Your task to perform on an android device: turn off javascript in the chrome app Image 0: 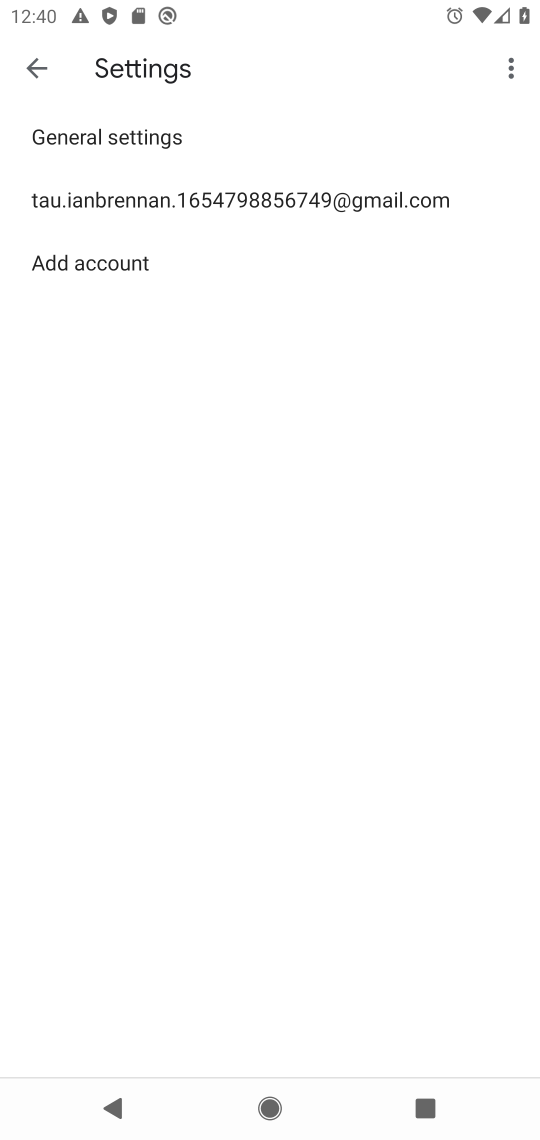
Step 0: press home button
Your task to perform on an android device: turn off javascript in the chrome app Image 1: 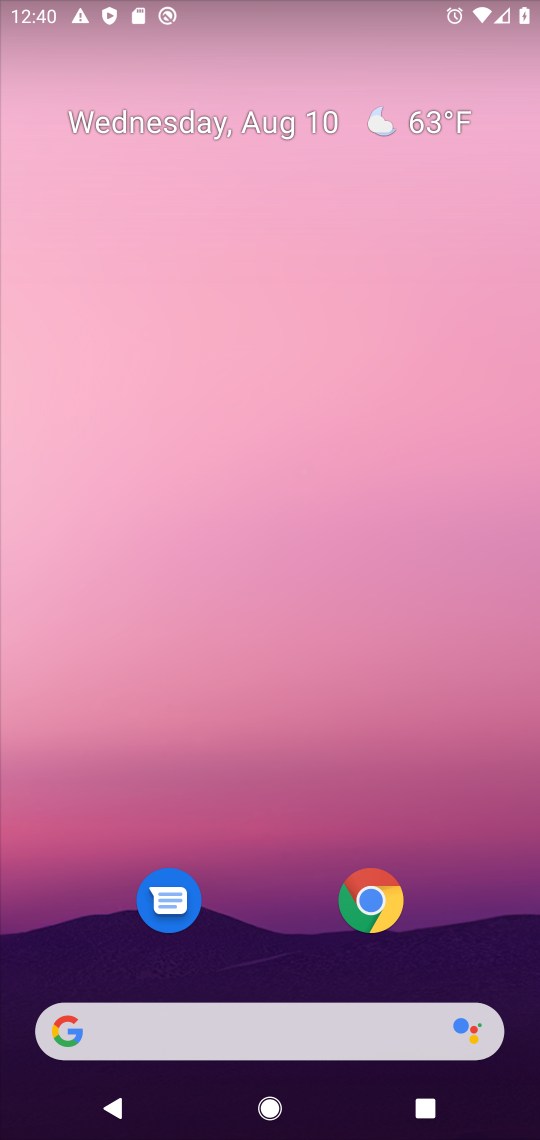
Step 1: click (381, 895)
Your task to perform on an android device: turn off javascript in the chrome app Image 2: 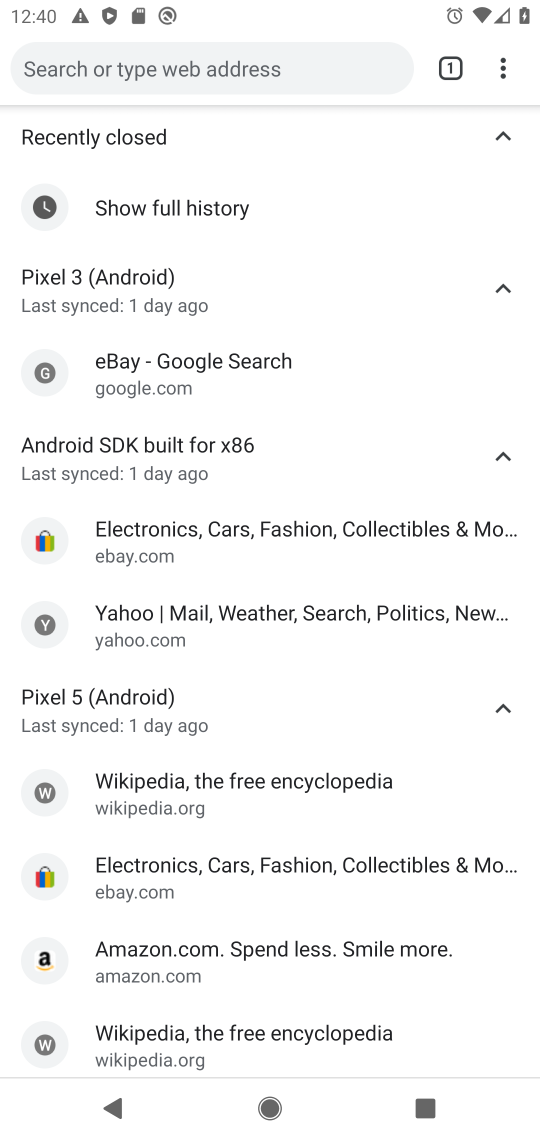
Step 2: click (505, 68)
Your task to perform on an android device: turn off javascript in the chrome app Image 3: 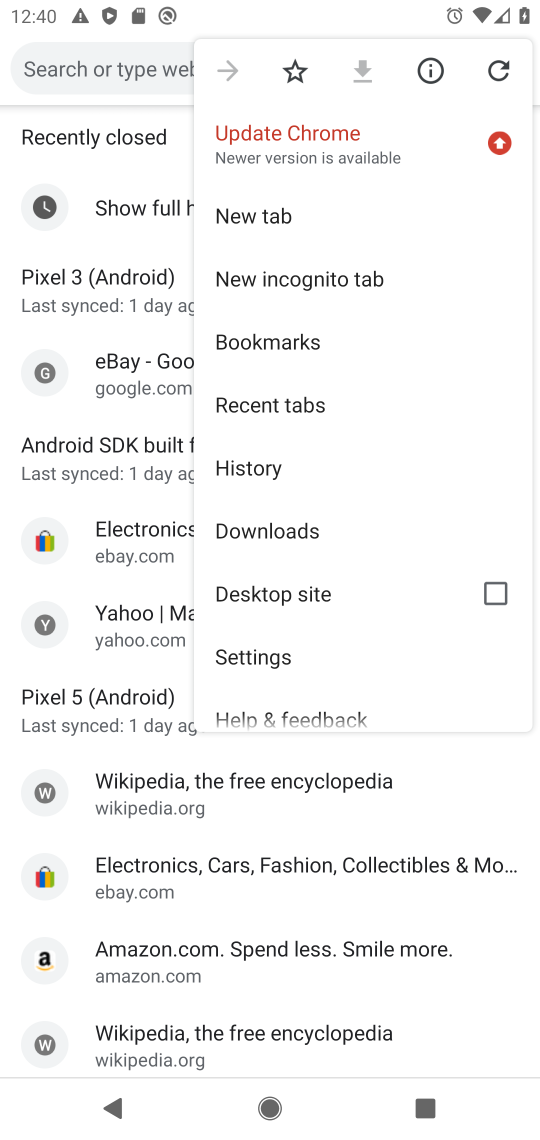
Step 3: click (276, 655)
Your task to perform on an android device: turn off javascript in the chrome app Image 4: 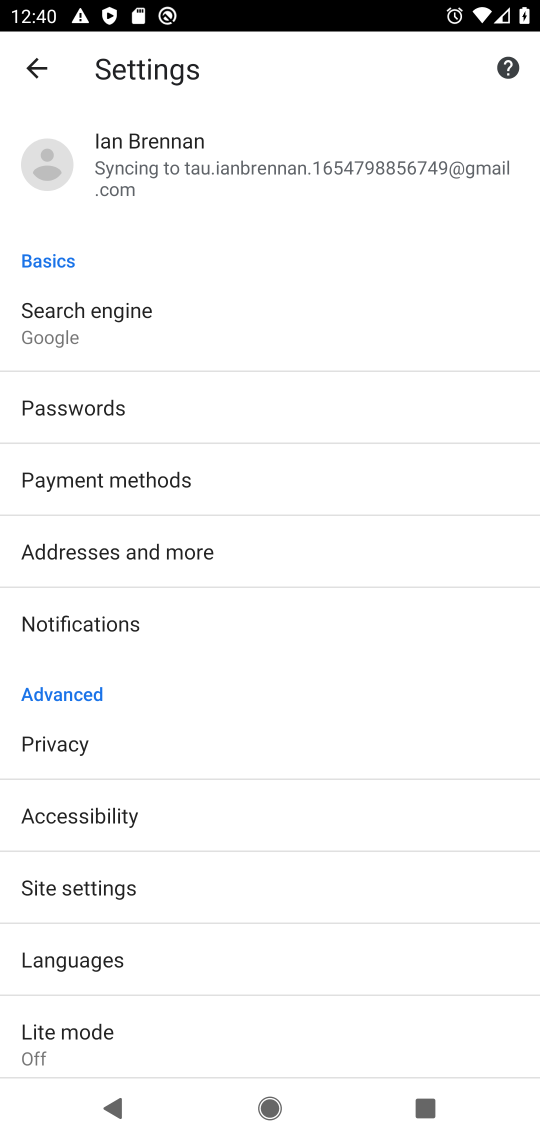
Step 4: click (238, 882)
Your task to perform on an android device: turn off javascript in the chrome app Image 5: 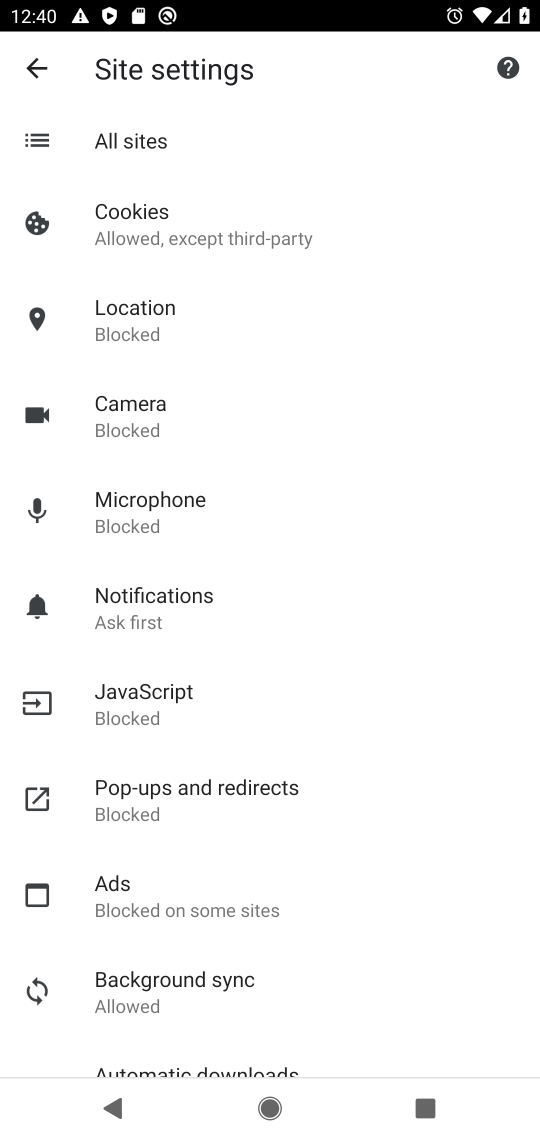
Step 5: click (164, 690)
Your task to perform on an android device: turn off javascript in the chrome app Image 6: 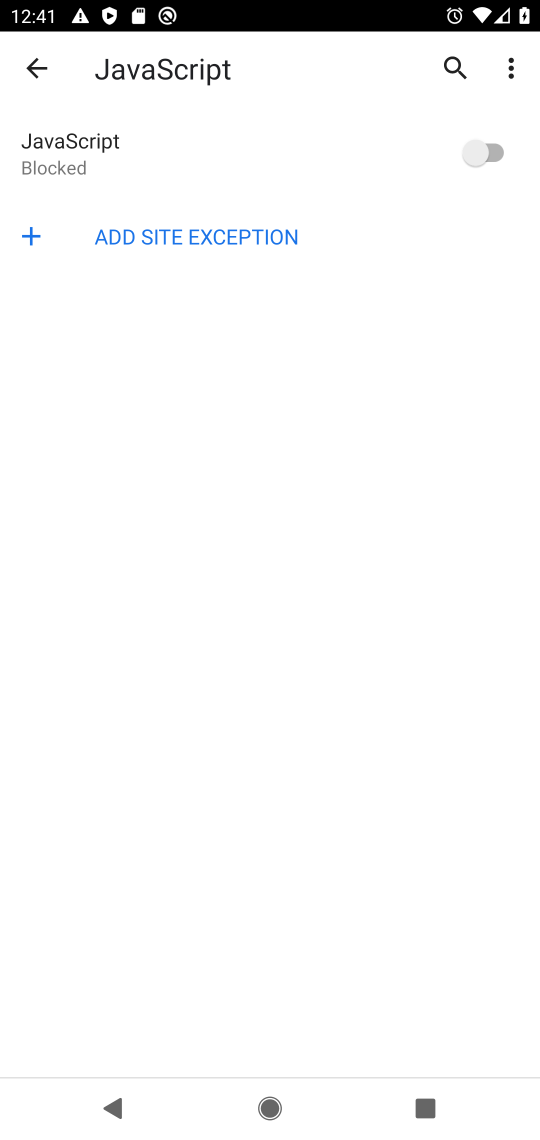
Step 6: task complete